Your task to perform on an android device: change the upload size in google photos Image 0: 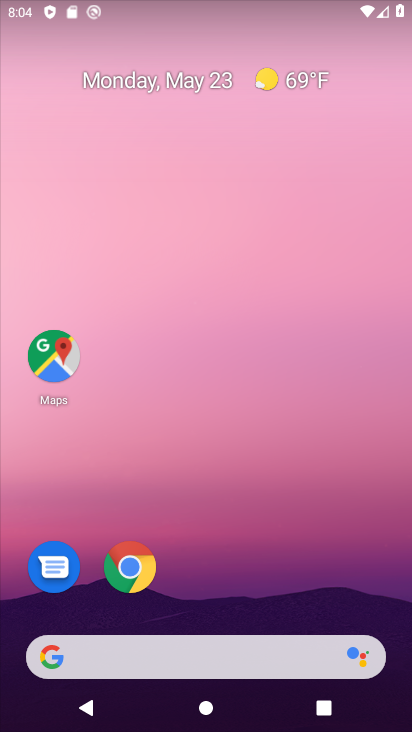
Step 0: drag from (244, 602) to (349, 16)
Your task to perform on an android device: change the upload size in google photos Image 1: 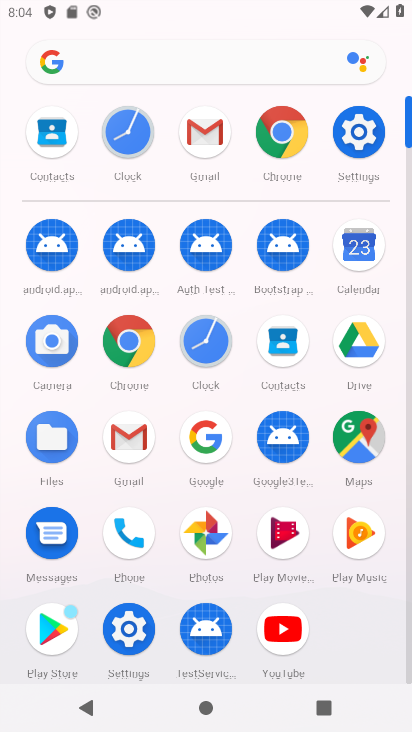
Step 1: click (212, 535)
Your task to perform on an android device: change the upload size in google photos Image 2: 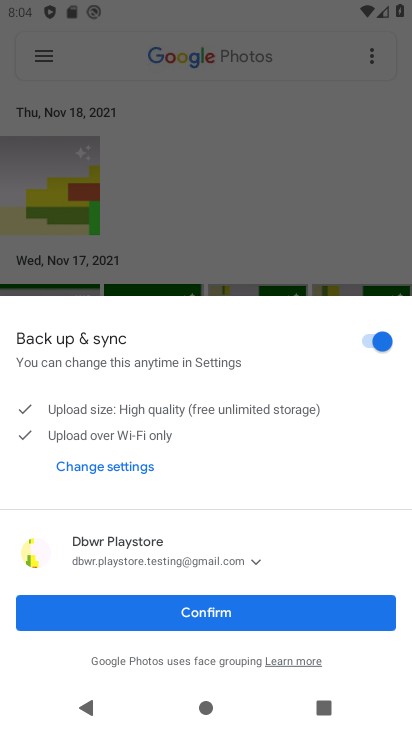
Step 2: click (286, 626)
Your task to perform on an android device: change the upload size in google photos Image 3: 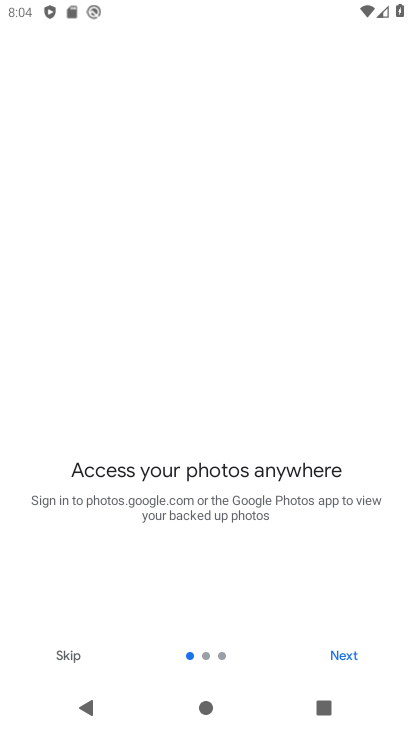
Step 3: click (80, 649)
Your task to perform on an android device: change the upload size in google photos Image 4: 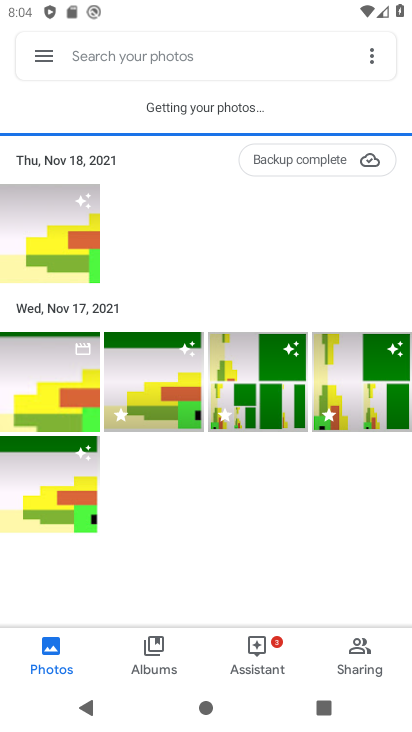
Step 4: click (35, 53)
Your task to perform on an android device: change the upload size in google photos Image 5: 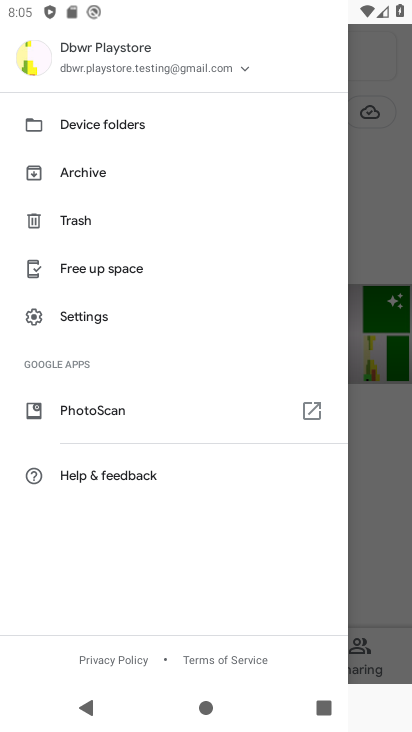
Step 5: click (91, 318)
Your task to perform on an android device: change the upload size in google photos Image 6: 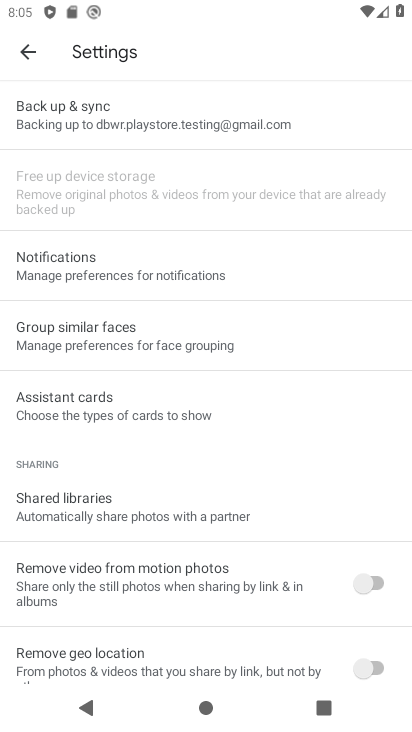
Step 6: click (145, 114)
Your task to perform on an android device: change the upload size in google photos Image 7: 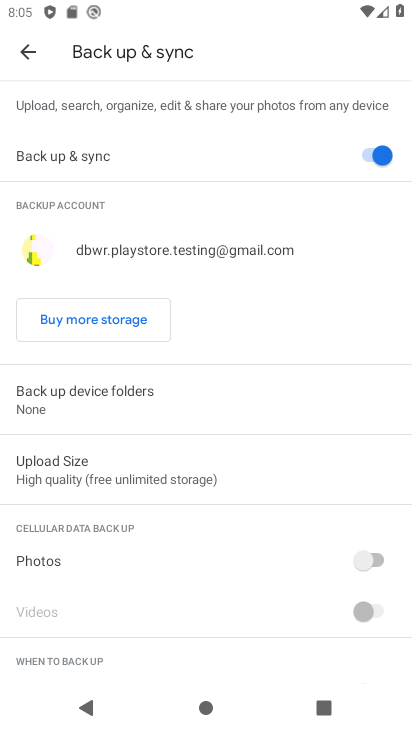
Step 7: click (178, 475)
Your task to perform on an android device: change the upload size in google photos Image 8: 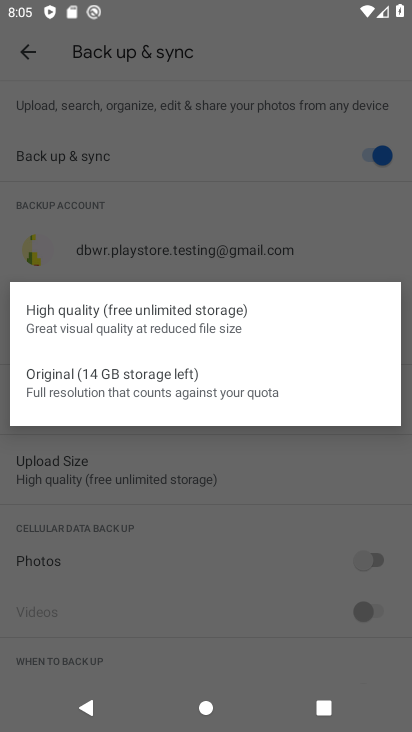
Step 8: click (133, 387)
Your task to perform on an android device: change the upload size in google photos Image 9: 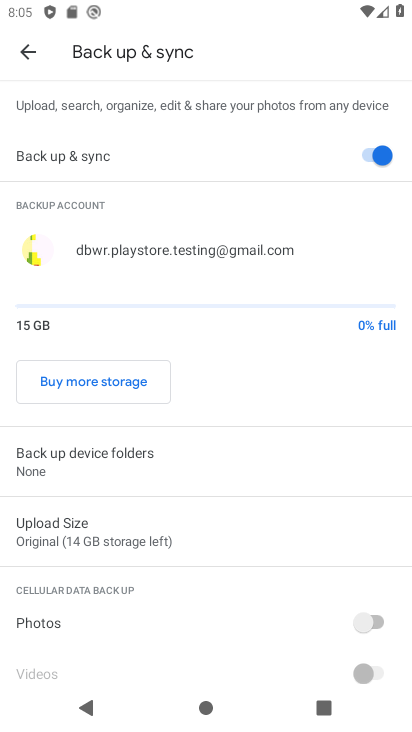
Step 9: task complete